Your task to perform on an android device: Set the phone to "Do not disturb". Image 0: 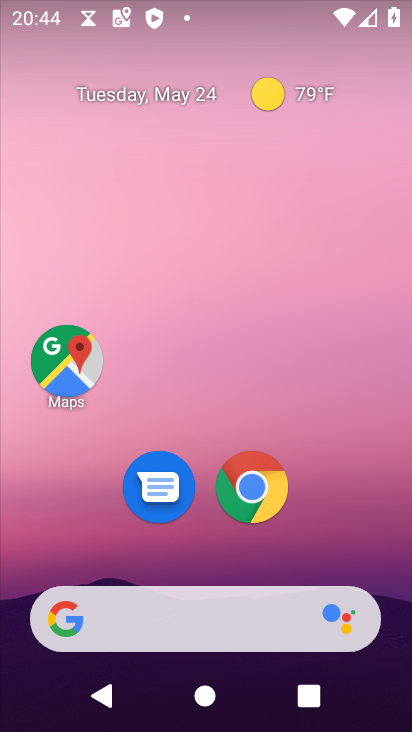
Step 0: drag from (206, 16) to (220, 389)
Your task to perform on an android device: Set the phone to "Do not disturb". Image 1: 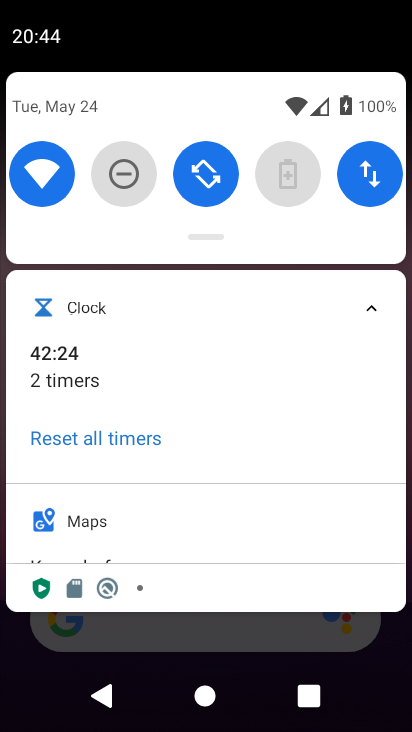
Step 1: click (126, 169)
Your task to perform on an android device: Set the phone to "Do not disturb". Image 2: 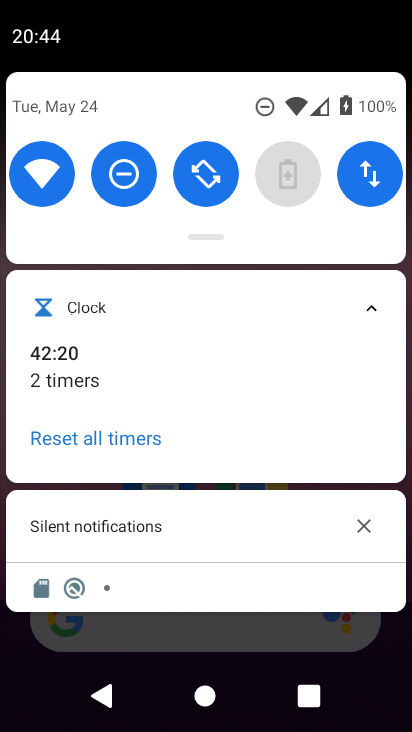
Step 2: task complete